Your task to perform on an android device: set the stopwatch Image 0: 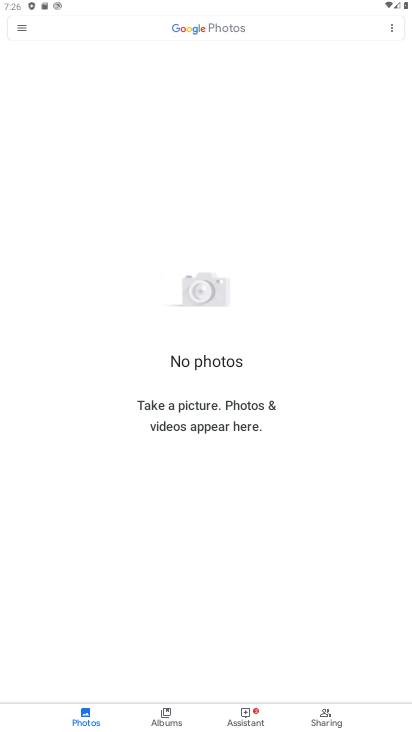
Step 0: press home button
Your task to perform on an android device: set the stopwatch Image 1: 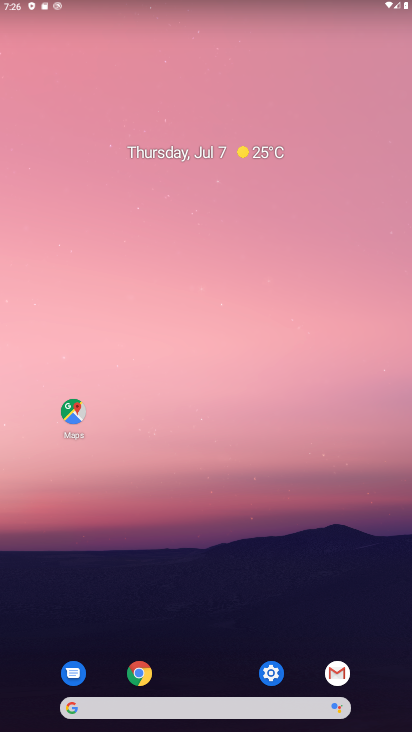
Step 1: drag from (261, 692) to (222, 190)
Your task to perform on an android device: set the stopwatch Image 2: 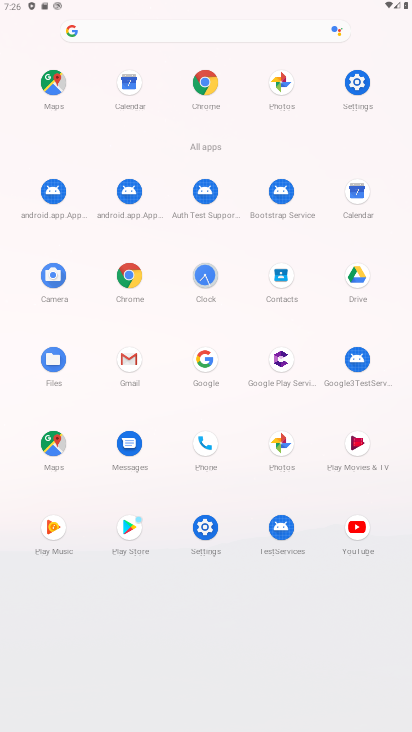
Step 2: click (204, 271)
Your task to perform on an android device: set the stopwatch Image 3: 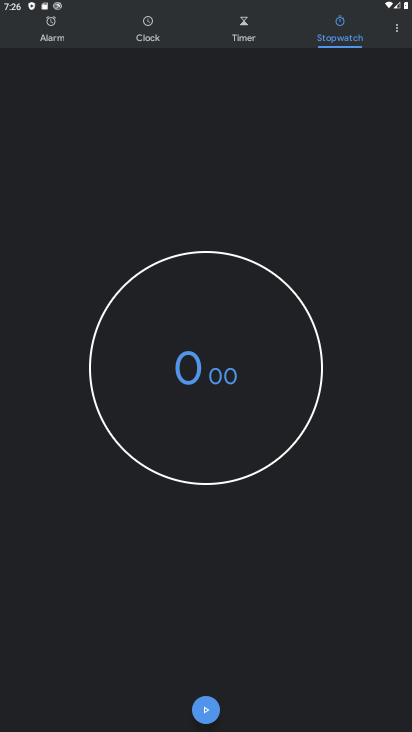
Step 3: click (211, 707)
Your task to perform on an android device: set the stopwatch Image 4: 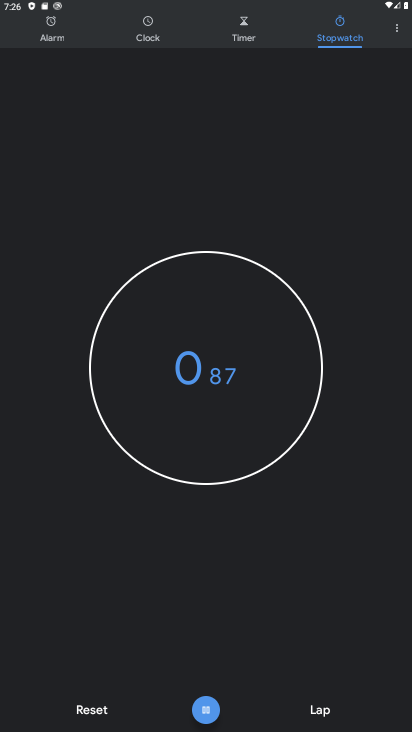
Step 4: click (210, 707)
Your task to perform on an android device: set the stopwatch Image 5: 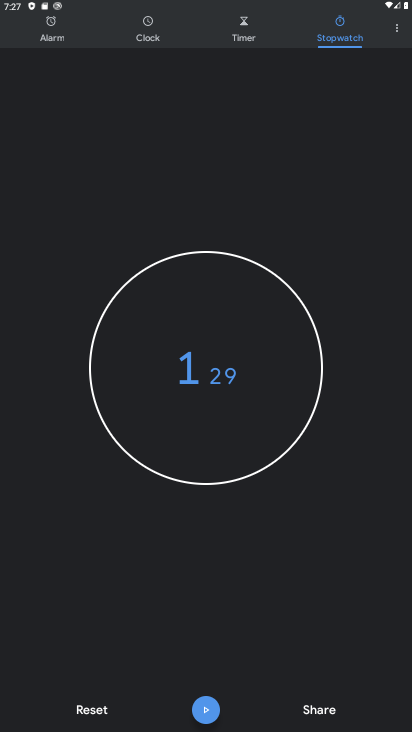
Step 5: task complete